Your task to perform on an android device: Go to calendar. Show me events next week Image 0: 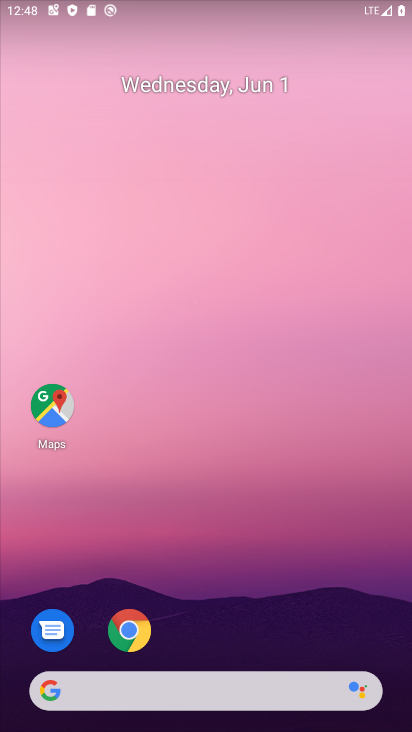
Step 0: drag from (275, 630) to (315, 72)
Your task to perform on an android device: Go to calendar. Show me events next week Image 1: 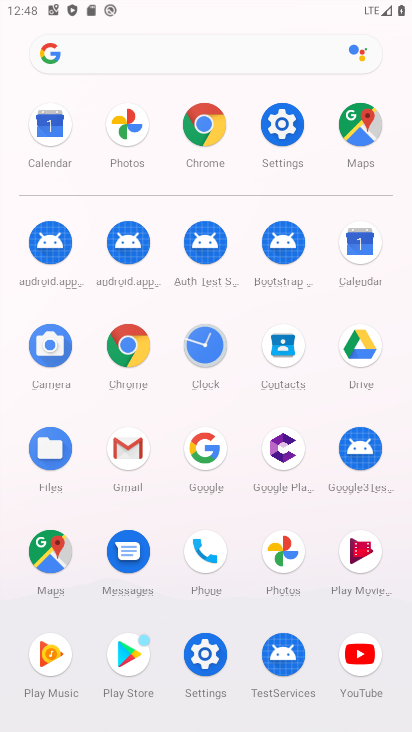
Step 1: click (368, 241)
Your task to perform on an android device: Go to calendar. Show me events next week Image 2: 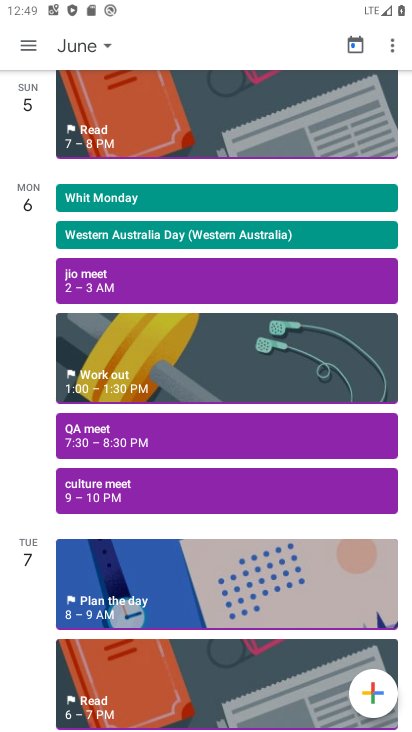
Step 2: click (22, 46)
Your task to perform on an android device: Go to calendar. Show me events next week Image 3: 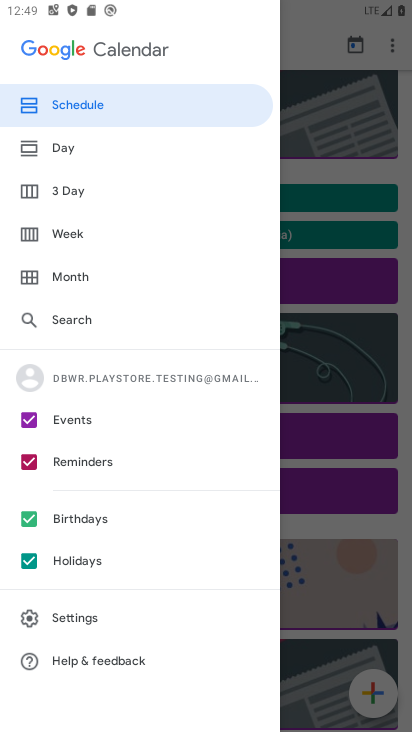
Step 3: click (73, 95)
Your task to perform on an android device: Go to calendar. Show me events next week Image 4: 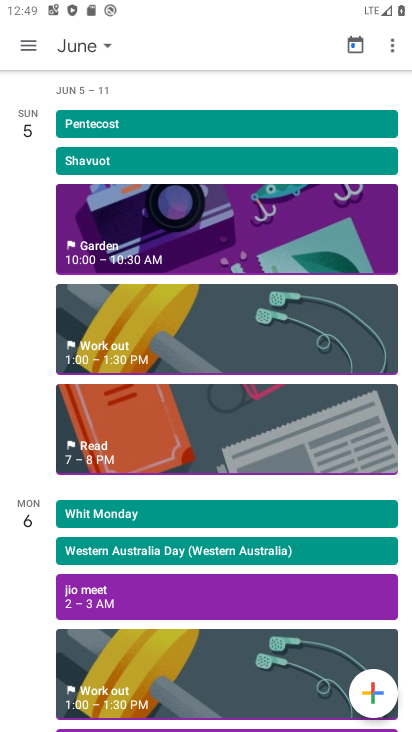
Step 4: task complete